Your task to perform on an android device: Is it going to rain this weekend? Image 0: 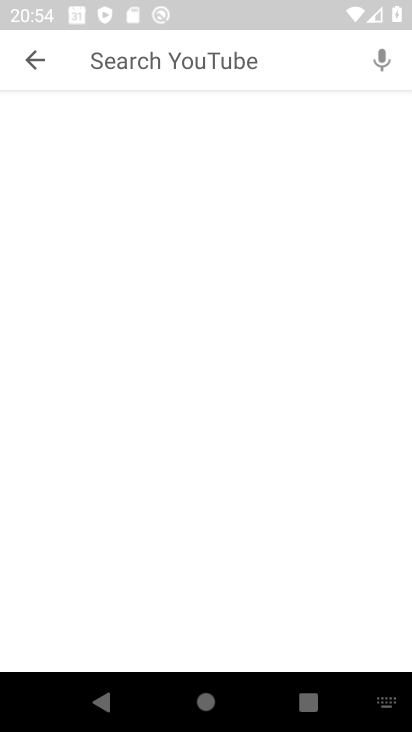
Step 0: press home button
Your task to perform on an android device: Is it going to rain this weekend? Image 1: 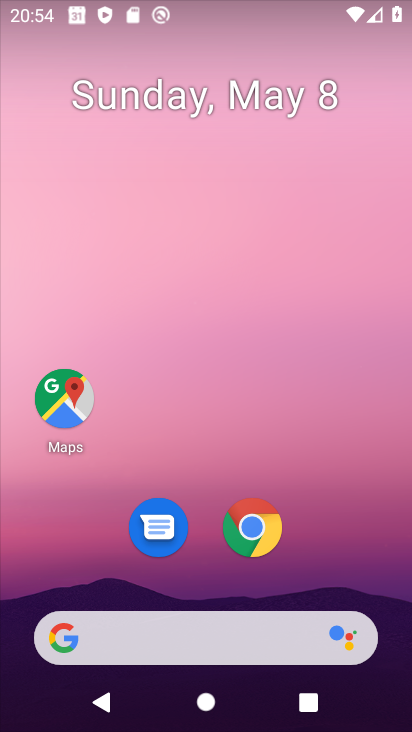
Step 1: drag from (205, 564) to (192, 1)
Your task to perform on an android device: Is it going to rain this weekend? Image 2: 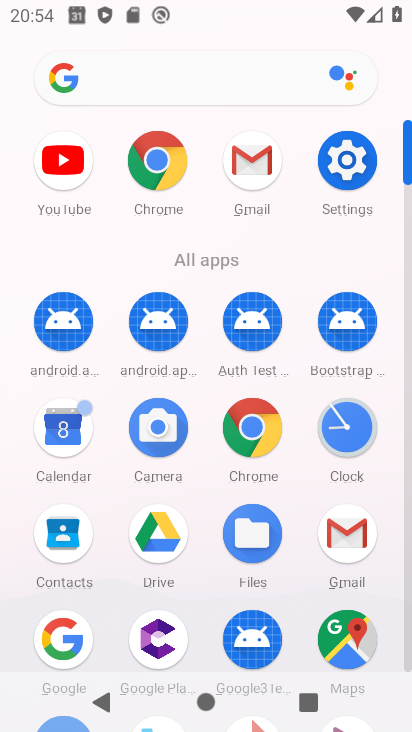
Step 2: click (58, 637)
Your task to perform on an android device: Is it going to rain this weekend? Image 3: 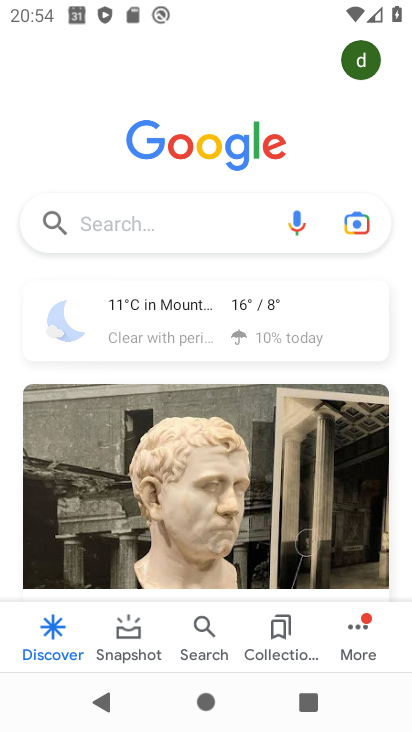
Step 3: click (162, 219)
Your task to perform on an android device: Is it going to rain this weekend? Image 4: 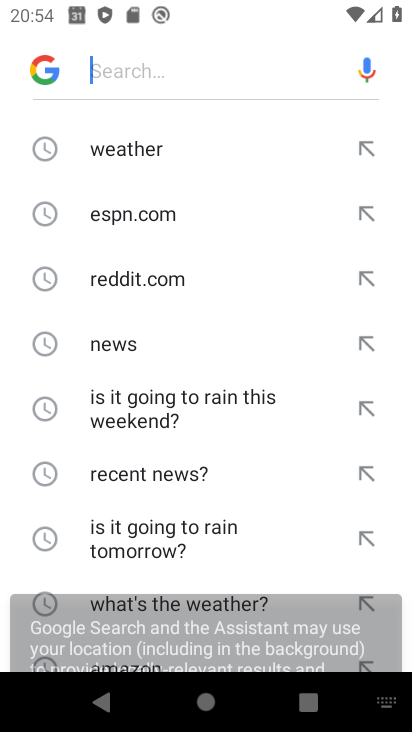
Step 4: click (159, 428)
Your task to perform on an android device: Is it going to rain this weekend? Image 5: 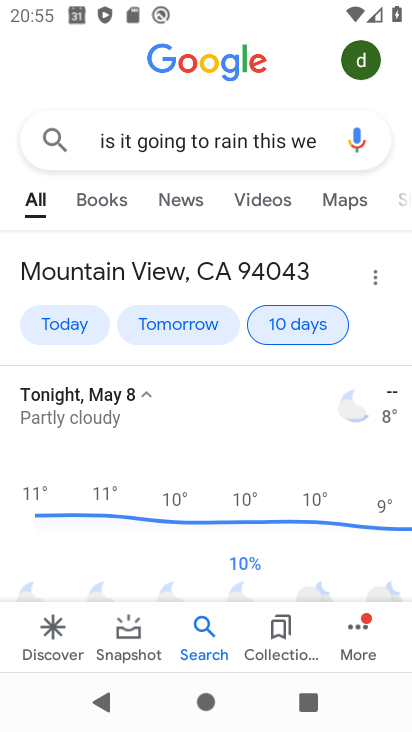
Step 5: task complete